Your task to perform on an android device: Open CNN.com Image 0: 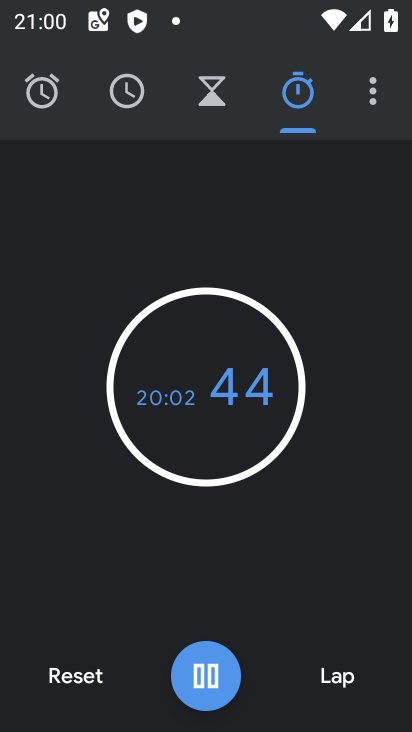
Step 0: press home button
Your task to perform on an android device: Open CNN.com Image 1: 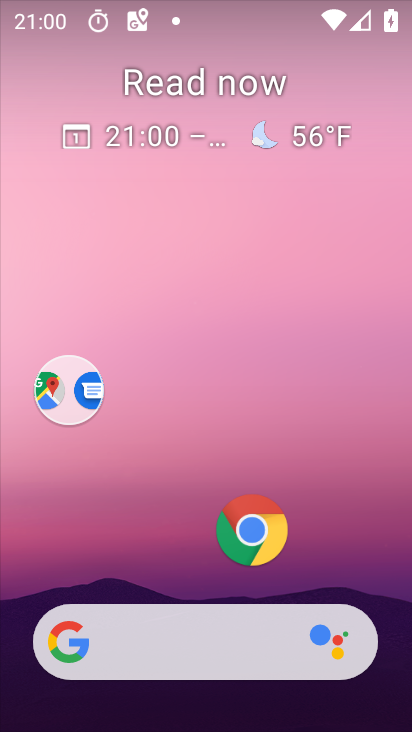
Step 1: drag from (172, 565) to (207, 99)
Your task to perform on an android device: Open CNN.com Image 2: 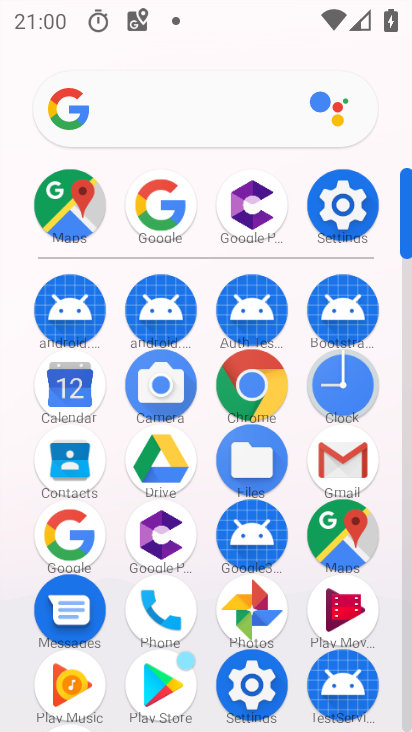
Step 2: click (165, 209)
Your task to perform on an android device: Open CNN.com Image 3: 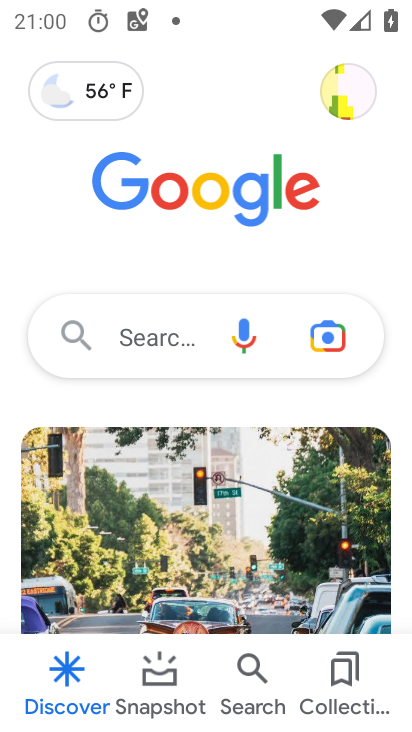
Step 3: click (136, 341)
Your task to perform on an android device: Open CNN.com Image 4: 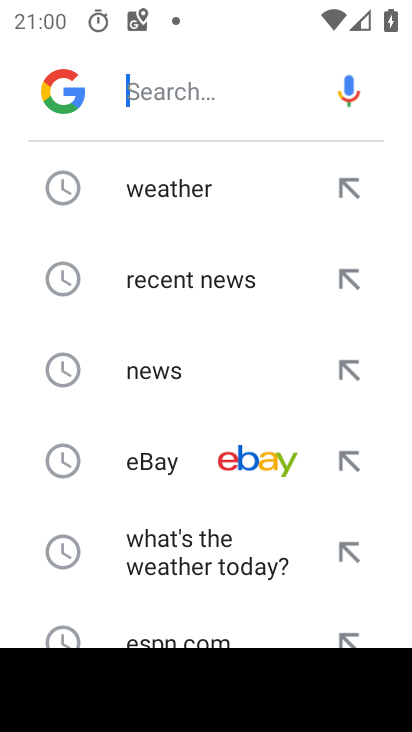
Step 4: drag from (199, 507) to (218, 284)
Your task to perform on an android device: Open CNN.com Image 5: 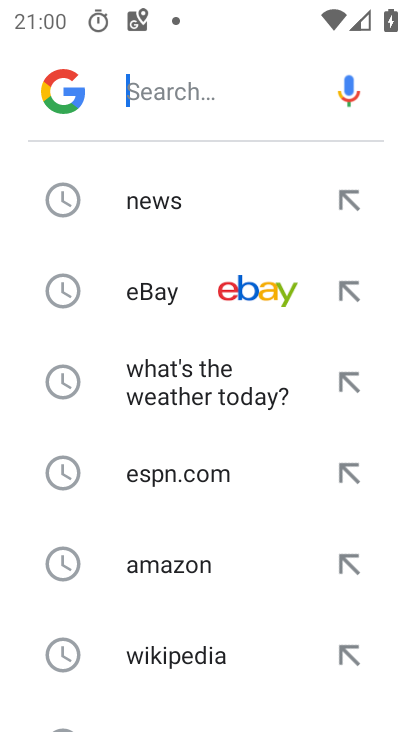
Step 5: type "cnn.com"
Your task to perform on an android device: Open CNN.com Image 6: 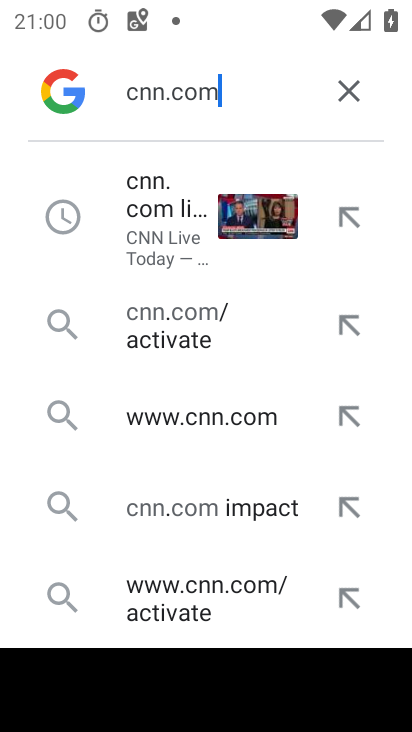
Step 6: click (142, 217)
Your task to perform on an android device: Open CNN.com Image 7: 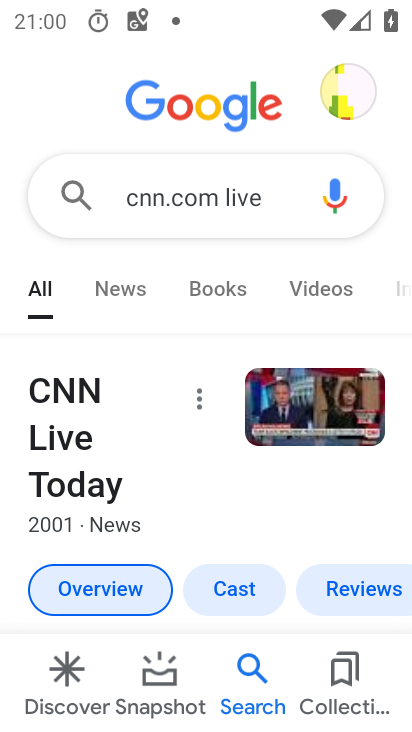
Step 7: task complete